Your task to perform on an android device: Open location settings Image 0: 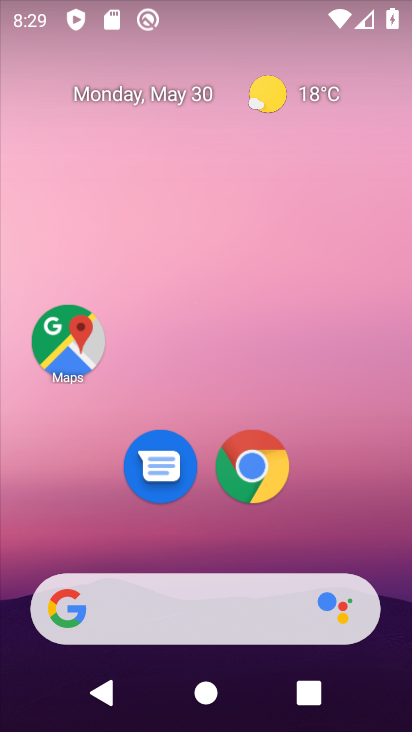
Step 0: drag from (330, 530) to (341, 85)
Your task to perform on an android device: Open location settings Image 1: 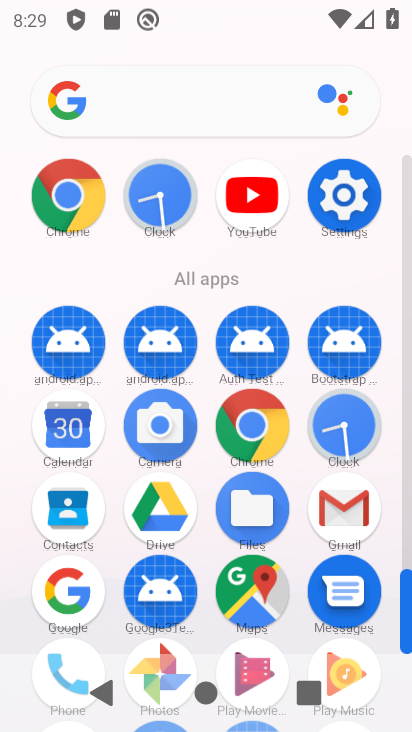
Step 1: click (344, 194)
Your task to perform on an android device: Open location settings Image 2: 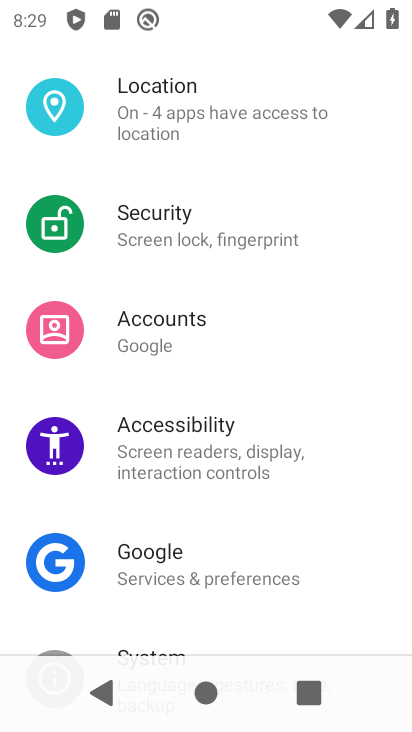
Step 2: click (164, 83)
Your task to perform on an android device: Open location settings Image 3: 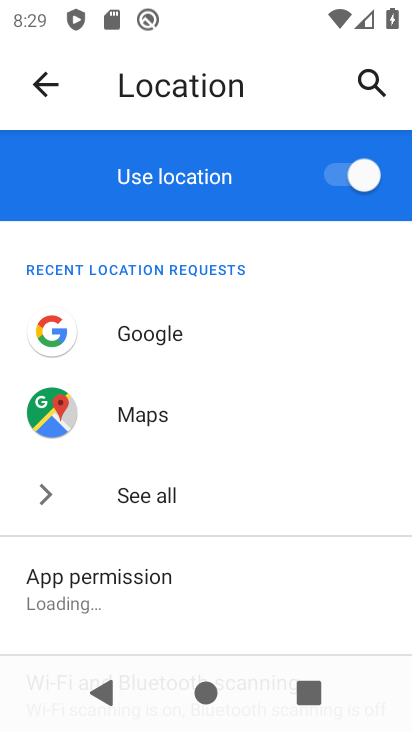
Step 3: task complete